Your task to perform on an android device: open app "Adobe Express: Graphic Design" Image 0: 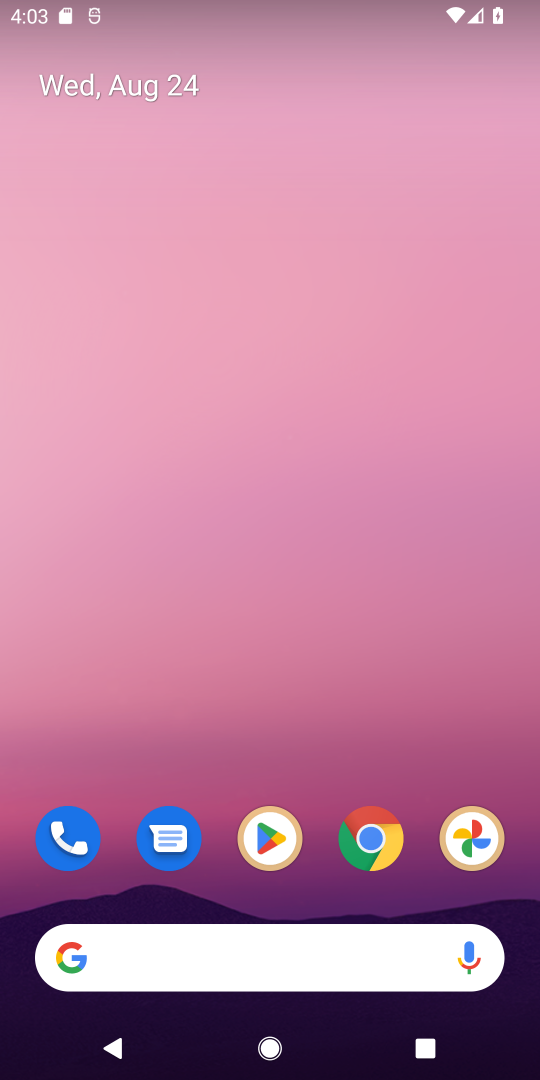
Step 0: press home button
Your task to perform on an android device: open app "Adobe Express: Graphic Design" Image 1: 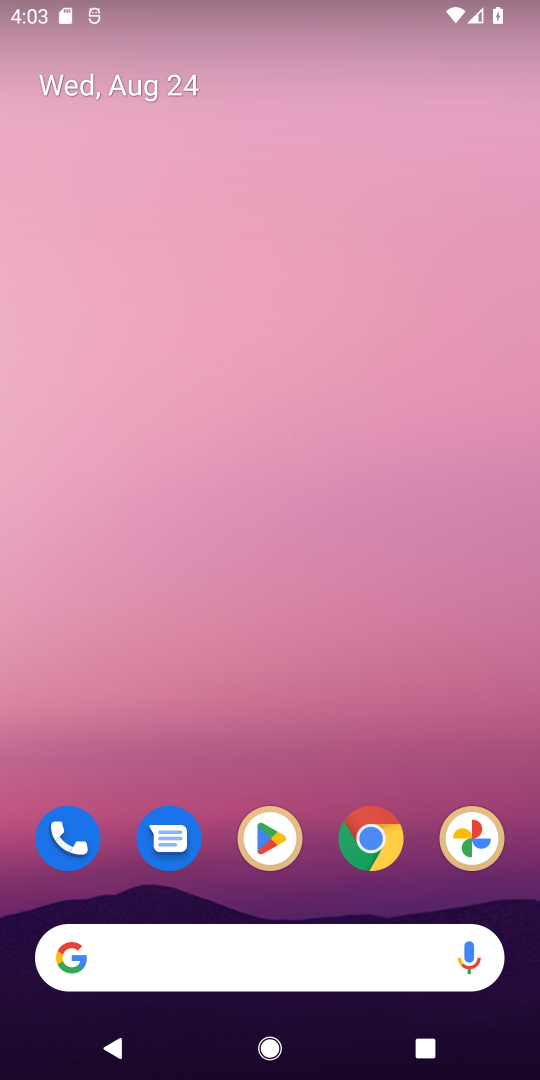
Step 1: click (262, 831)
Your task to perform on an android device: open app "Adobe Express: Graphic Design" Image 2: 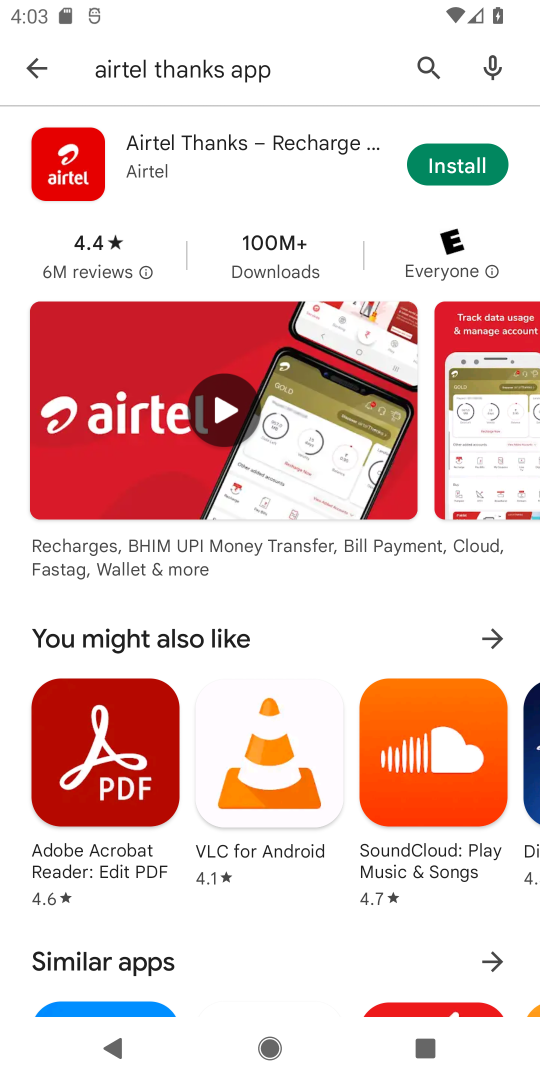
Step 2: click (420, 63)
Your task to perform on an android device: open app "Adobe Express: Graphic Design" Image 3: 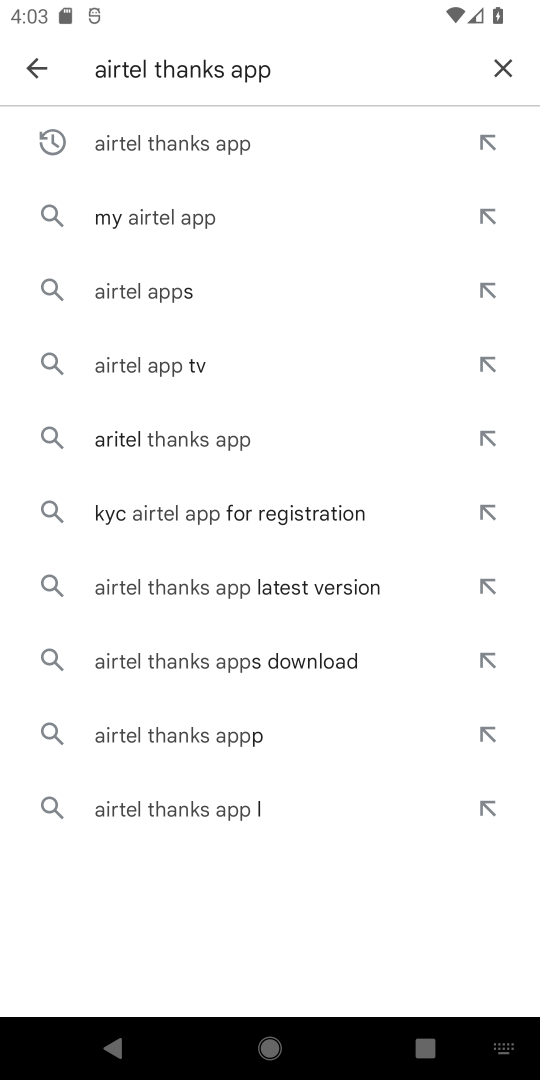
Step 3: click (508, 60)
Your task to perform on an android device: open app "Adobe Express: Graphic Design" Image 4: 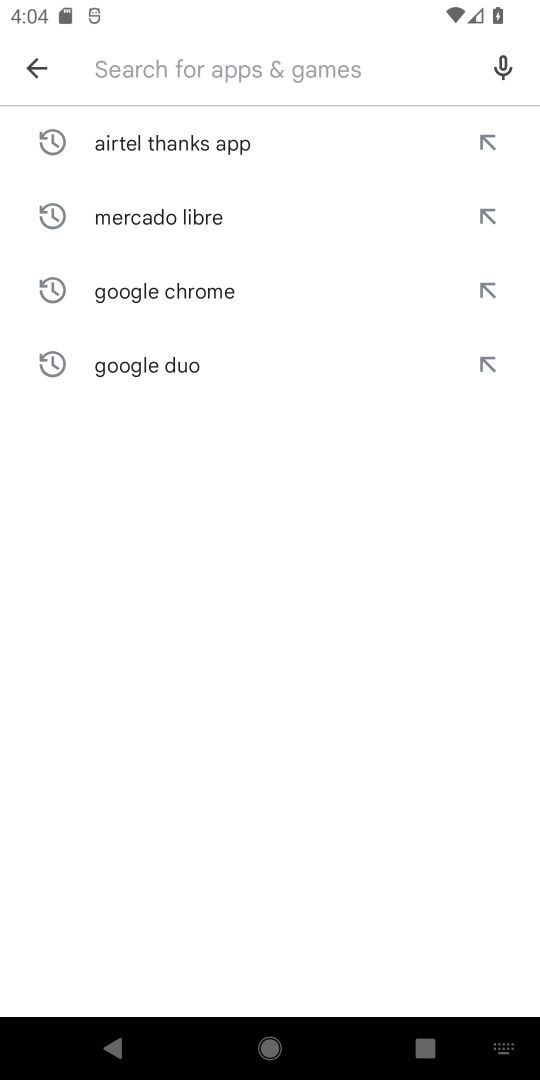
Step 4: type "Adobe Express: Graphic Design"
Your task to perform on an android device: open app "Adobe Express: Graphic Design" Image 5: 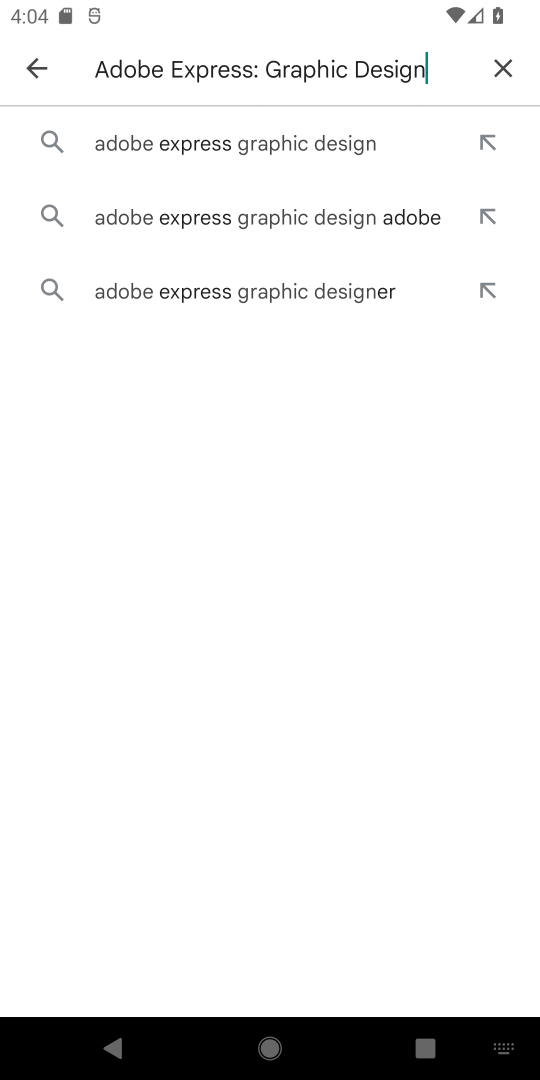
Step 5: click (262, 135)
Your task to perform on an android device: open app "Adobe Express: Graphic Design" Image 6: 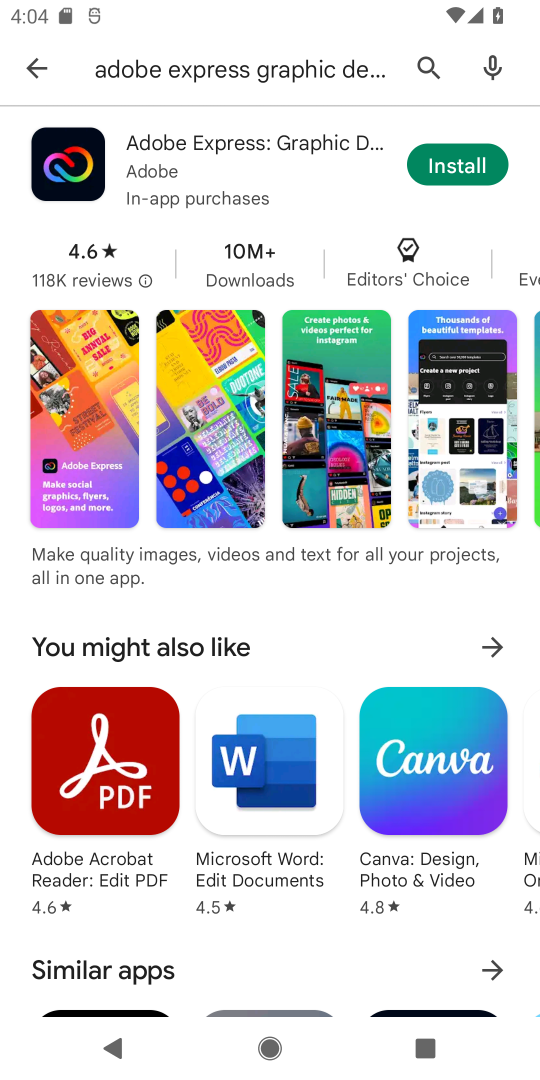
Step 6: task complete